Your task to perform on an android device: turn on translation in the chrome app Image 0: 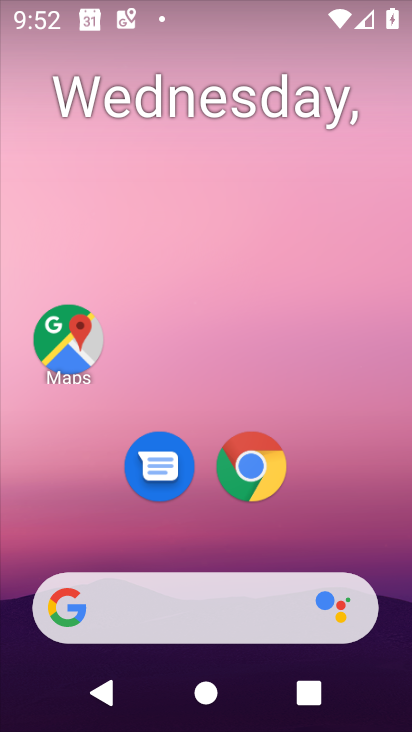
Step 0: drag from (335, 498) to (339, 243)
Your task to perform on an android device: turn on translation in the chrome app Image 1: 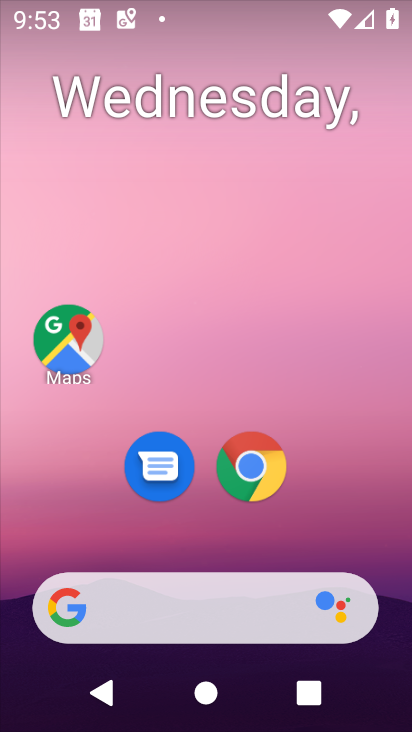
Step 1: drag from (344, 537) to (353, 253)
Your task to perform on an android device: turn on translation in the chrome app Image 2: 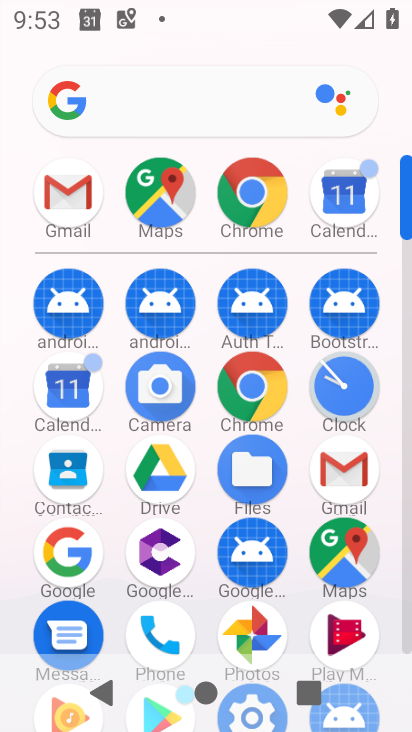
Step 2: click (234, 192)
Your task to perform on an android device: turn on translation in the chrome app Image 3: 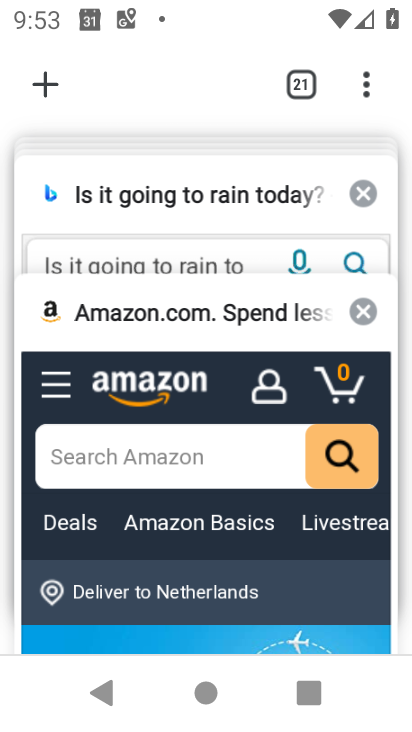
Step 3: click (348, 77)
Your task to perform on an android device: turn on translation in the chrome app Image 4: 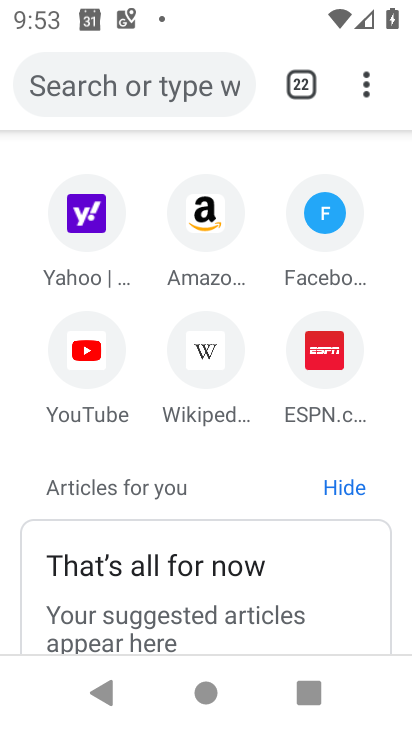
Step 4: click (345, 78)
Your task to perform on an android device: turn on translation in the chrome app Image 5: 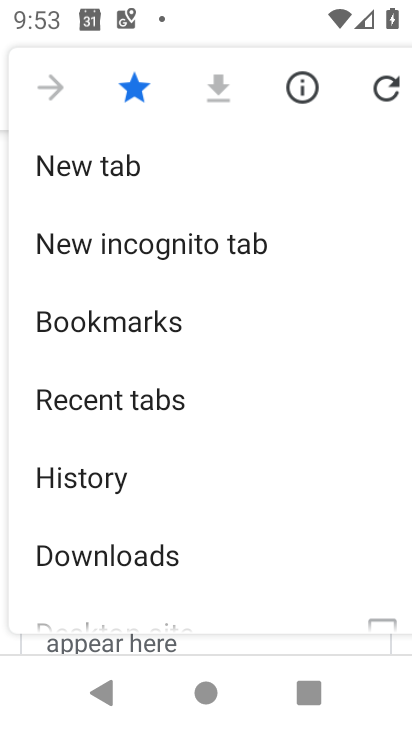
Step 5: drag from (211, 516) to (298, 160)
Your task to perform on an android device: turn on translation in the chrome app Image 6: 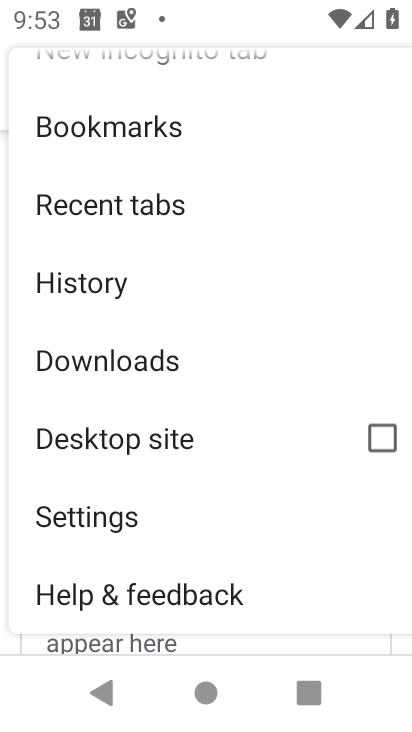
Step 6: click (147, 513)
Your task to perform on an android device: turn on translation in the chrome app Image 7: 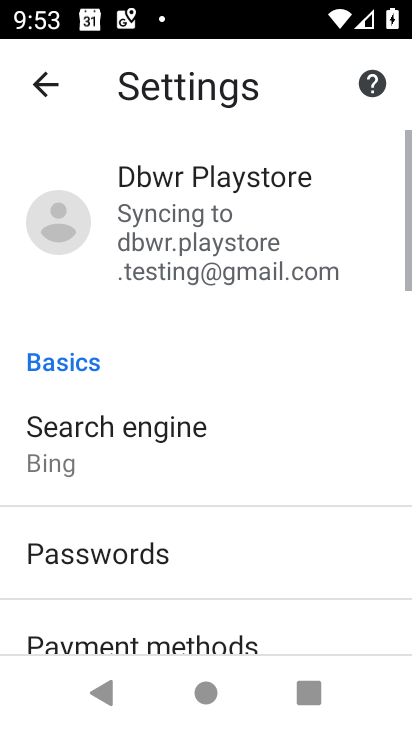
Step 7: drag from (234, 553) to (322, 168)
Your task to perform on an android device: turn on translation in the chrome app Image 8: 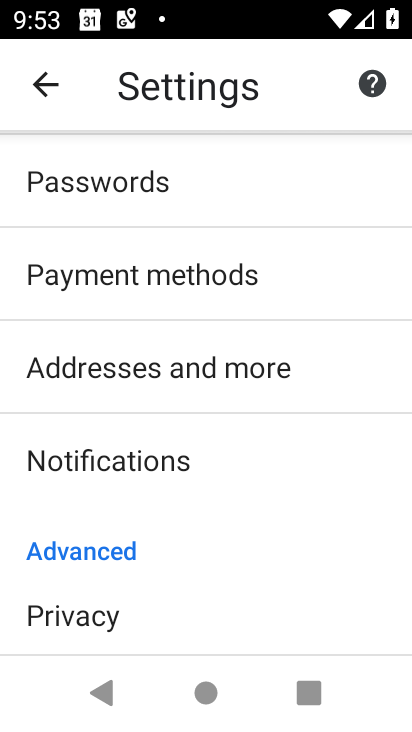
Step 8: drag from (180, 549) to (256, 226)
Your task to perform on an android device: turn on translation in the chrome app Image 9: 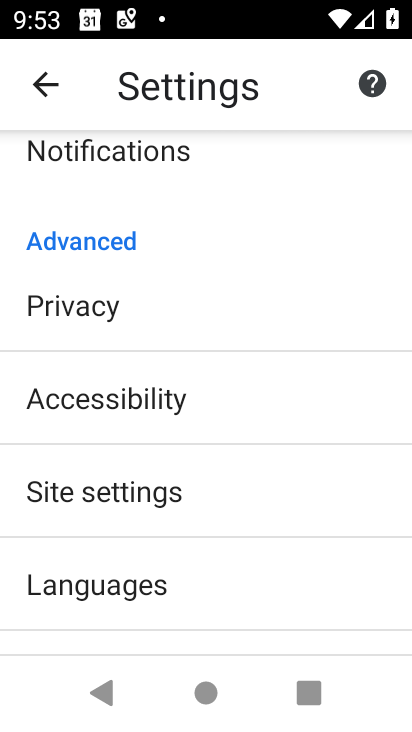
Step 9: drag from (164, 609) to (297, 289)
Your task to perform on an android device: turn on translation in the chrome app Image 10: 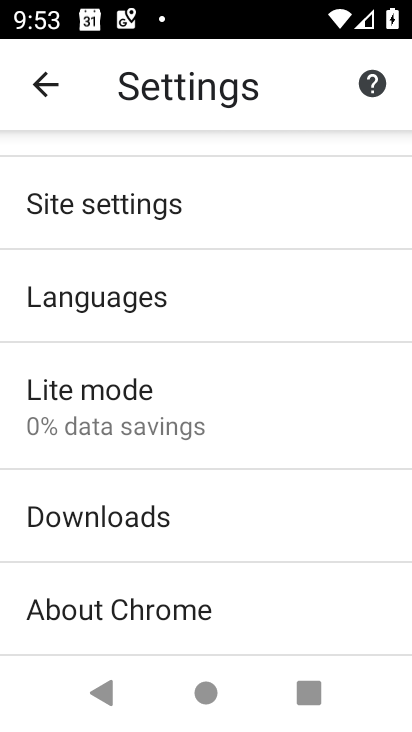
Step 10: click (166, 295)
Your task to perform on an android device: turn on translation in the chrome app Image 11: 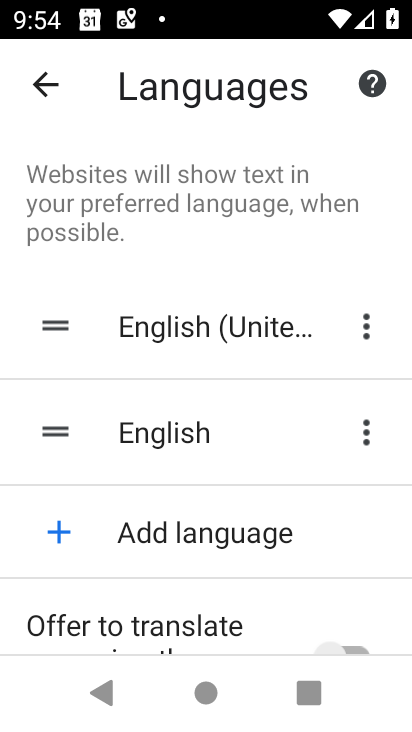
Step 11: drag from (223, 575) to (279, 371)
Your task to perform on an android device: turn on translation in the chrome app Image 12: 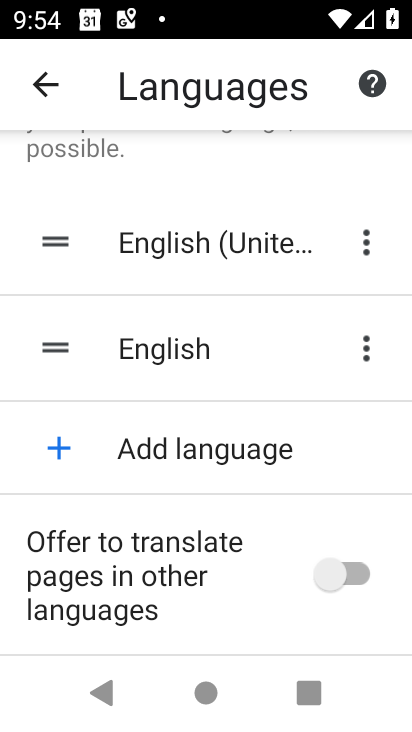
Step 12: click (356, 562)
Your task to perform on an android device: turn on translation in the chrome app Image 13: 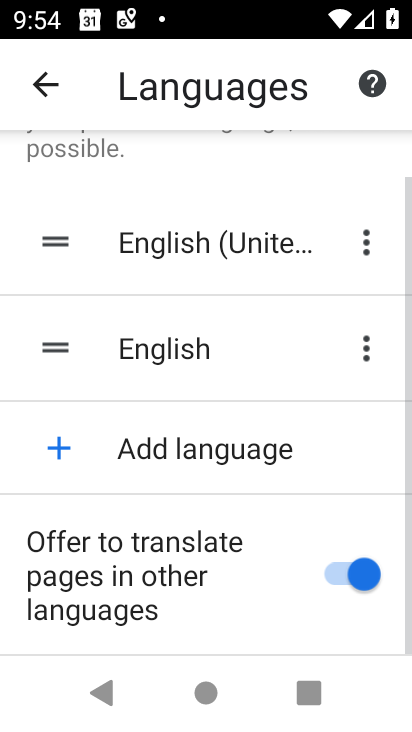
Step 13: task complete